Your task to perform on an android device: allow notifications from all sites in the chrome app Image 0: 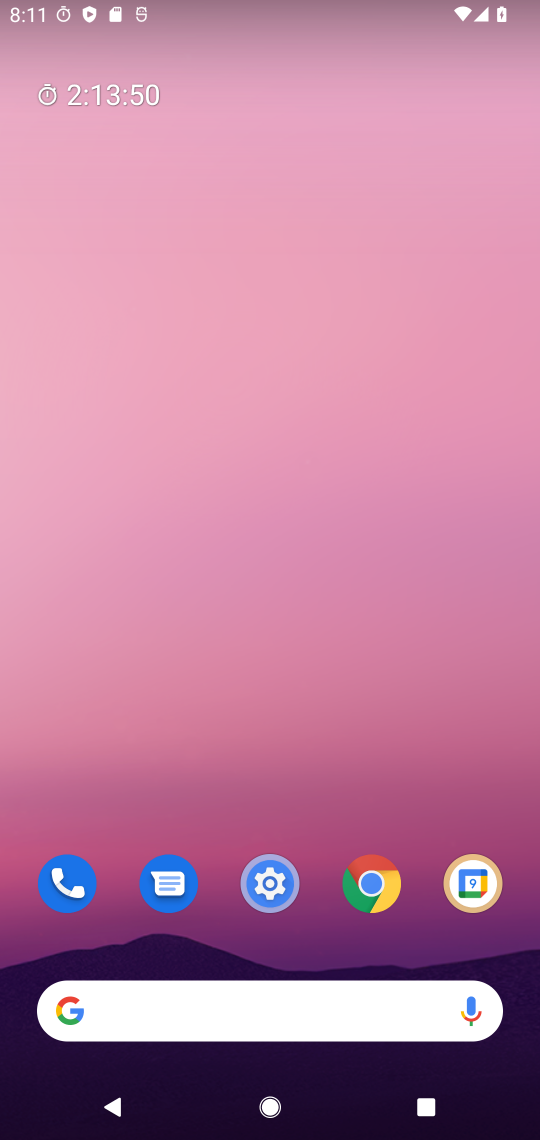
Step 0: click (376, 882)
Your task to perform on an android device: allow notifications from all sites in the chrome app Image 1: 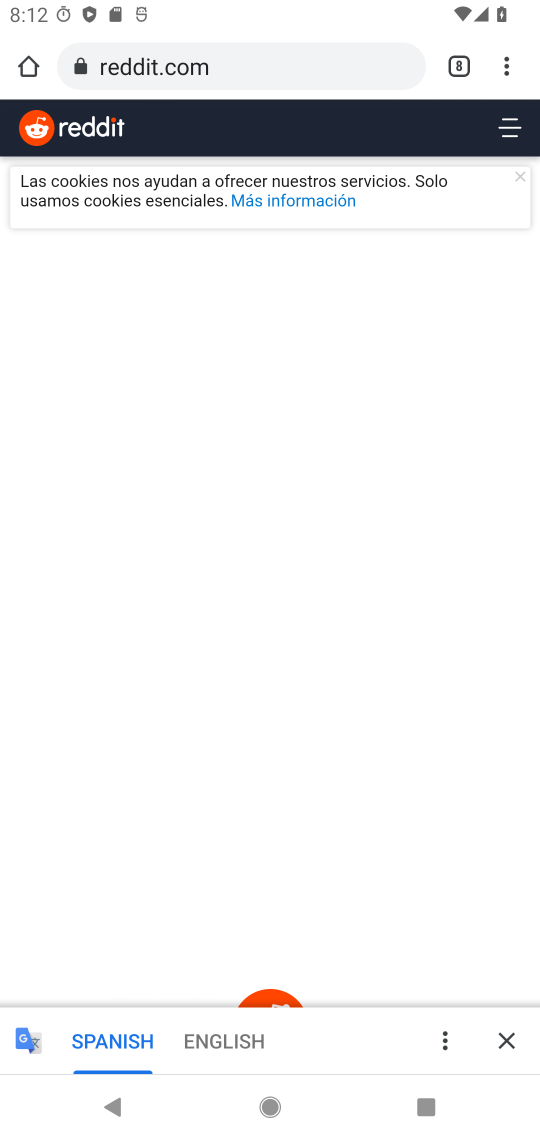
Step 1: click (500, 66)
Your task to perform on an android device: allow notifications from all sites in the chrome app Image 2: 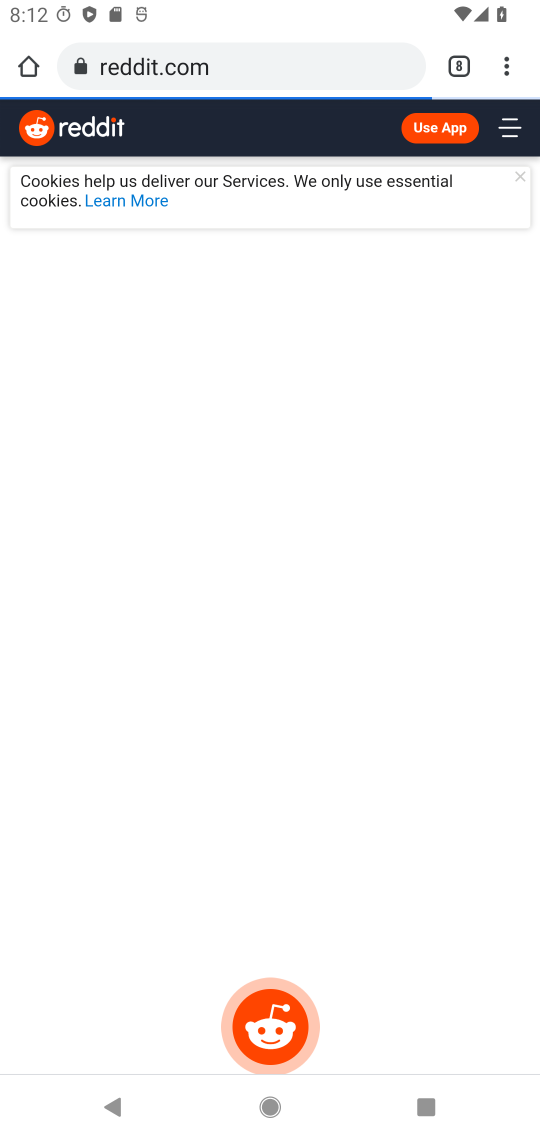
Step 2: drag from (500, 66) to (327, 881)
Your task to perform on an android device: allow notifications from all sites in the chrome app Image 3: 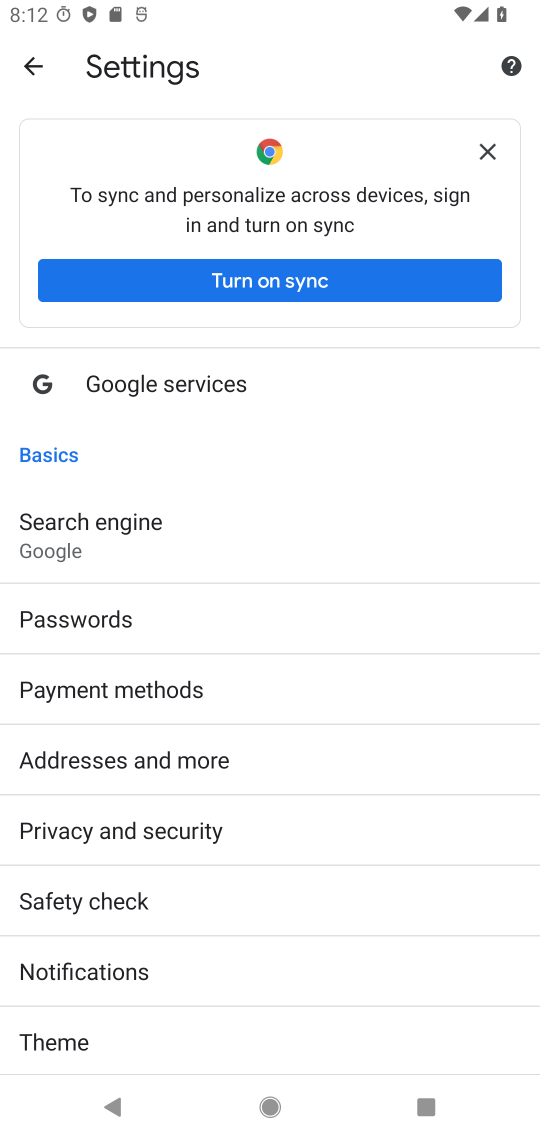
Step 3: drag from (145, 918) to (210, 346)
Your task to perform on an android device: allow notifications from all sites in the chrome app Image 4: 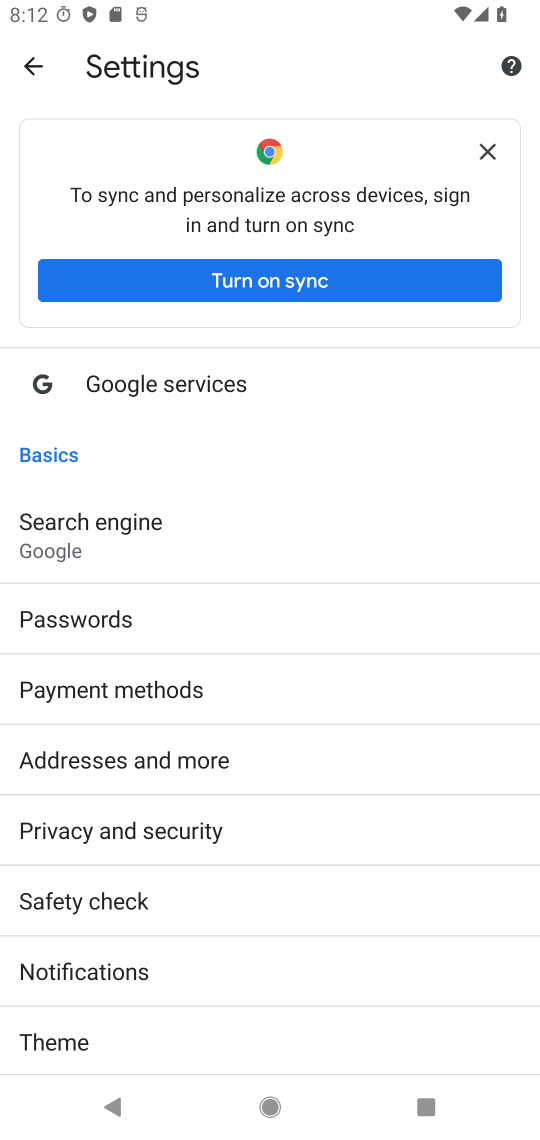
Step 4: drag from (214, 885) to (257, 547)
Your task to perform on an android device: allow notifications from all sites in the chrome app Image 5: 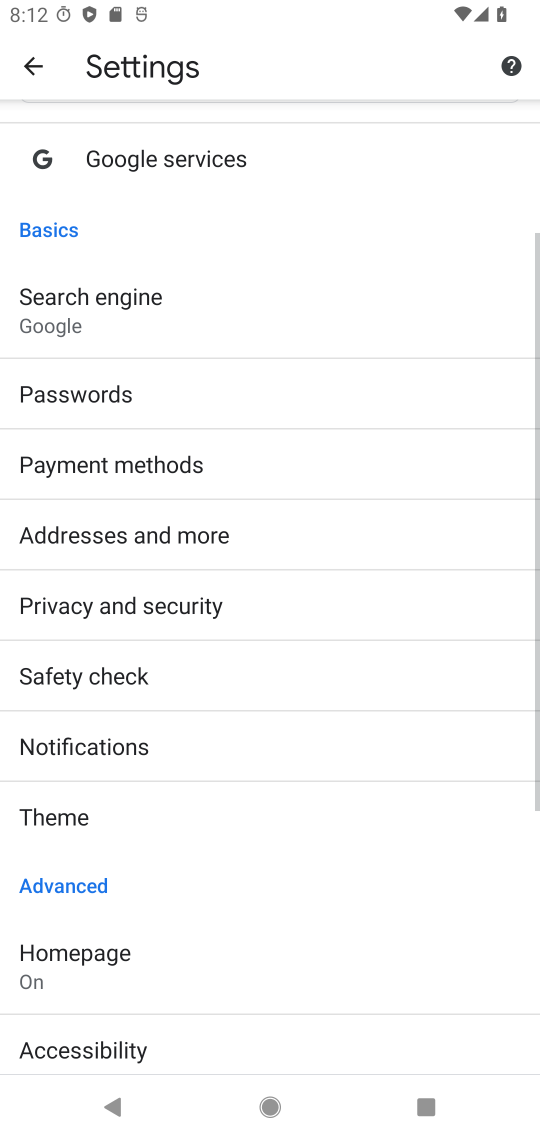
Step 5: click (159, 789)
Your task to perform on an android device: allow notifications from all sites in the chrome app Image 6: 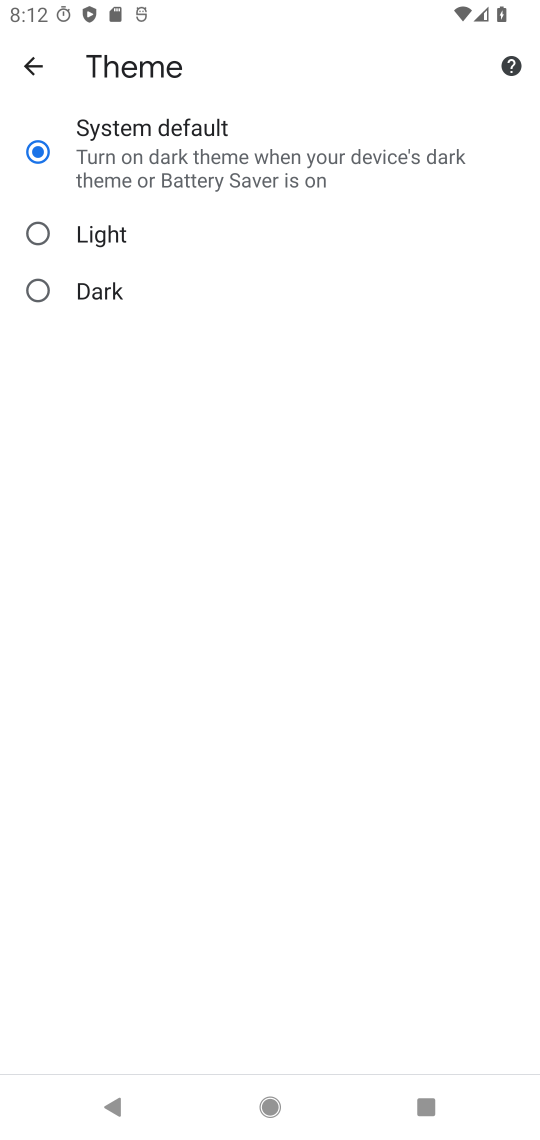
Step 6: click (28, 55)
Your task to perform on an android device: allow notifications from all sites in the chrome app Image 7: 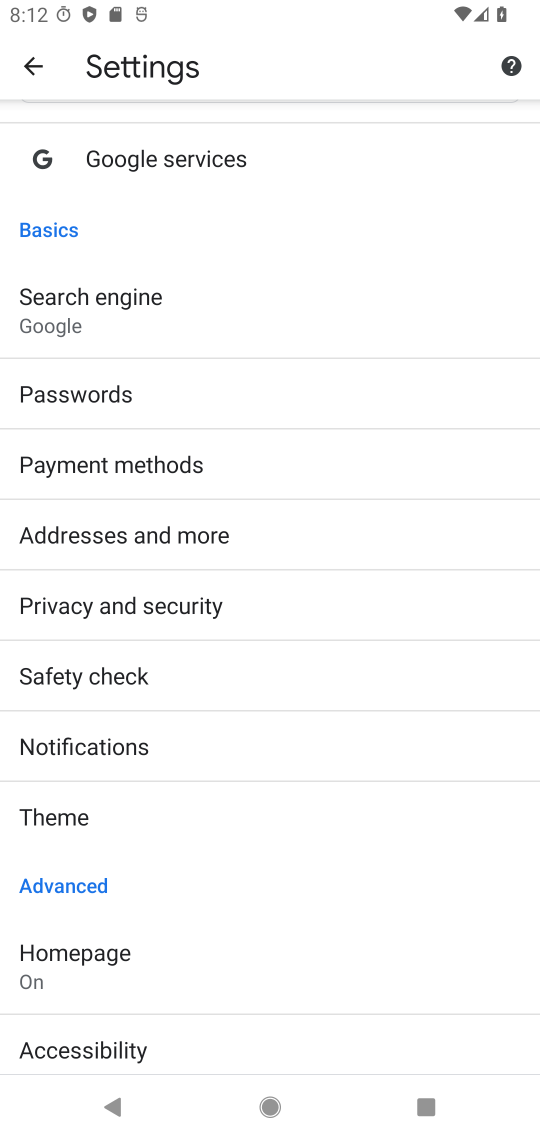
Step 7: click (183, 733)
Your task to perform on an android device: allow notifications from all sites in the chrome app Image 8: 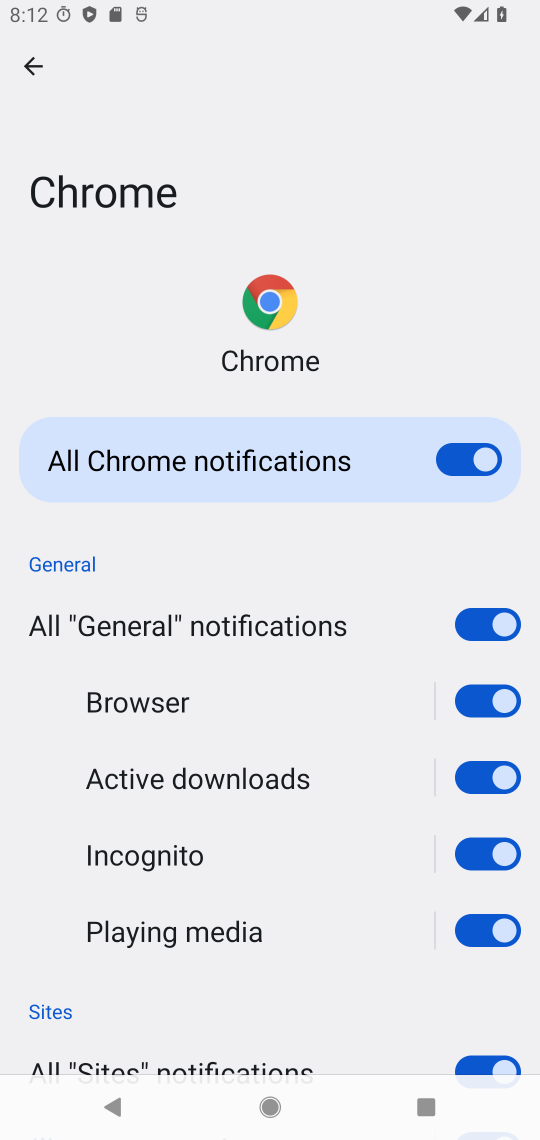
Step 8: task complete